Your task to perform on an android device: Go to settings Image 0: 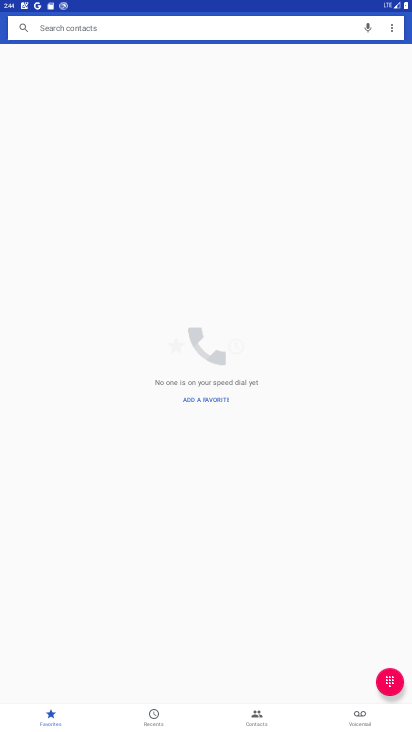
Step 0: press home button
Your task to perform on an android device: Go to settings Image 1: 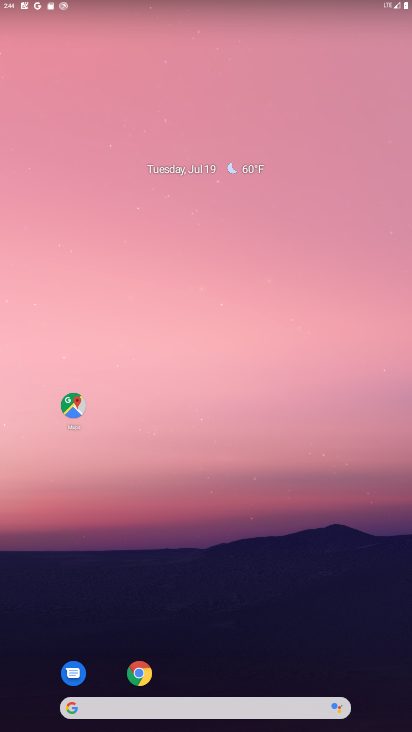
Step 1: drag from (129, 712) to (399, 64)
Your task to perform on an android device: Go to settings Image 2: 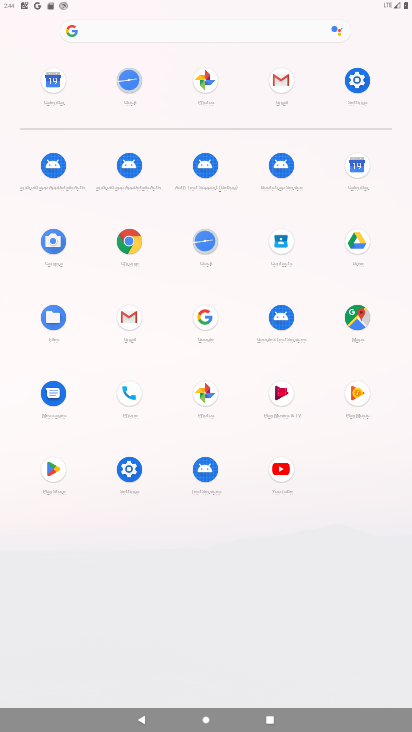
Step 2: click (359, 82)
Your task to perform on an android device: Go to settings Image 3: 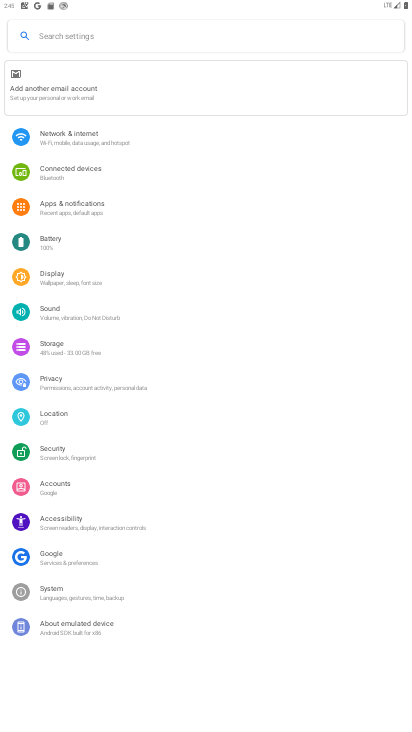
Step 3: task complete